Your task to perform on an android device: delete a single message in the gmail app Image 0: 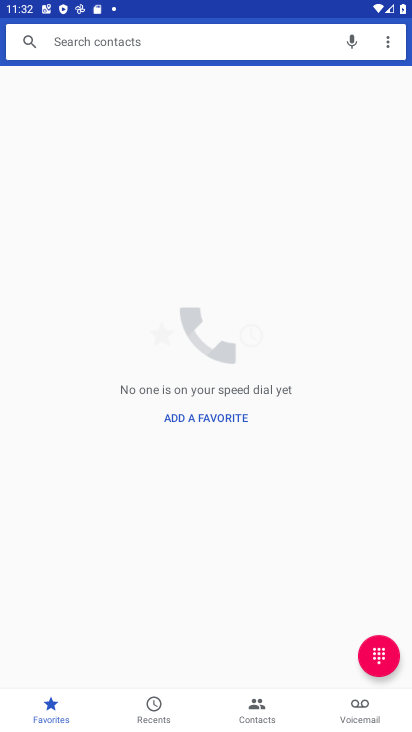
Step 0: press home button
Your task to perform on an android device: delete a single message in the gmail app Image 1: 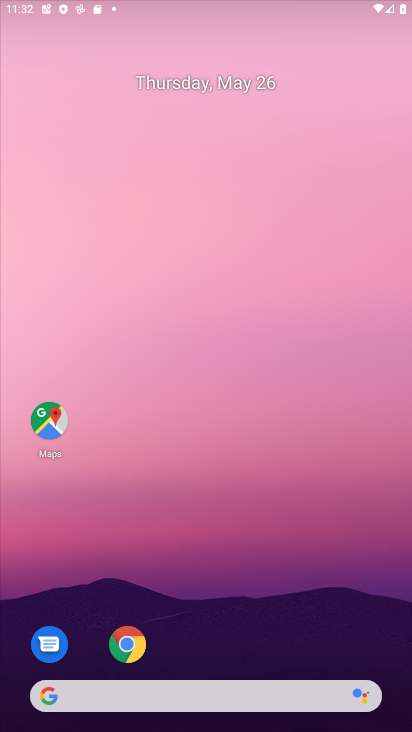
Step 1: drag from (358, 618) to (243, 5)
Your task to perform on an android device: delete a single message in the gmail app Image 2: 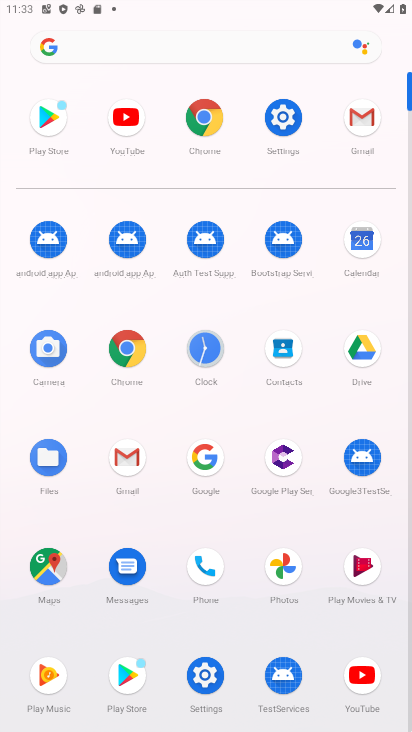
Step 2: click (117, 461)
Your task to perform on an android device: delete a single message in the gmail app Image 3: 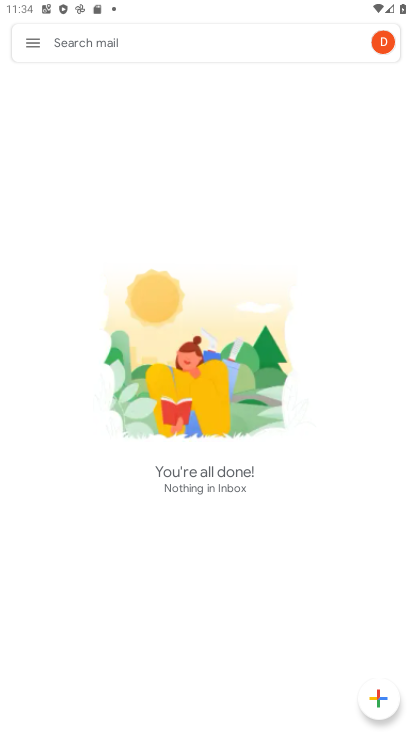
Step 3: task complete